Your task to perform on an android device: Find coffee shops on Maps Image 0: 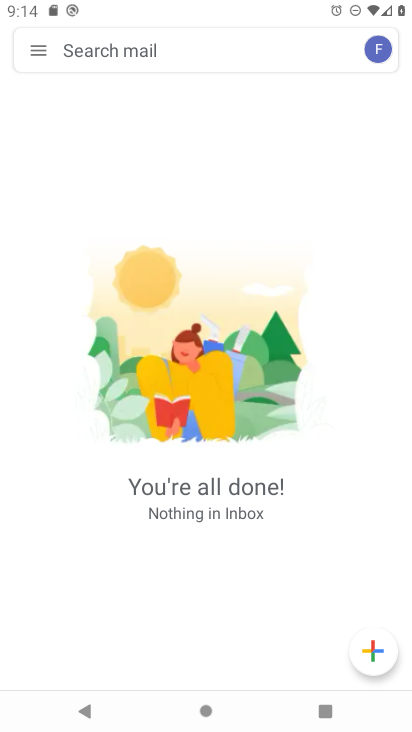
Step 0: press home button
Your task to perform on an android device: Find coffee shops on Maps Image 1: 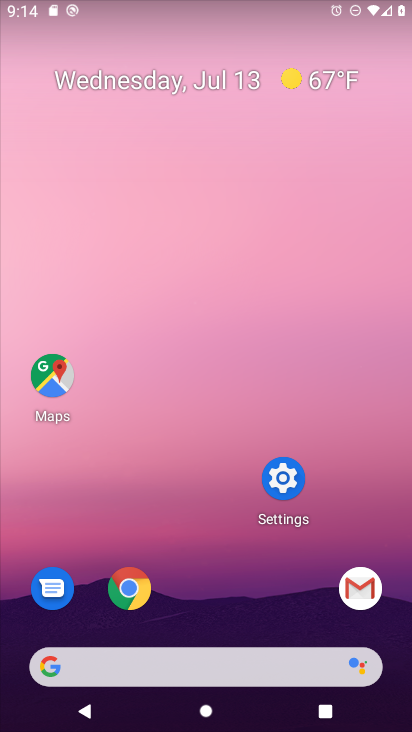
Step 1: click (70, 356)
Your task to perform on an android device: Find coffee shops on Maps Image 2: 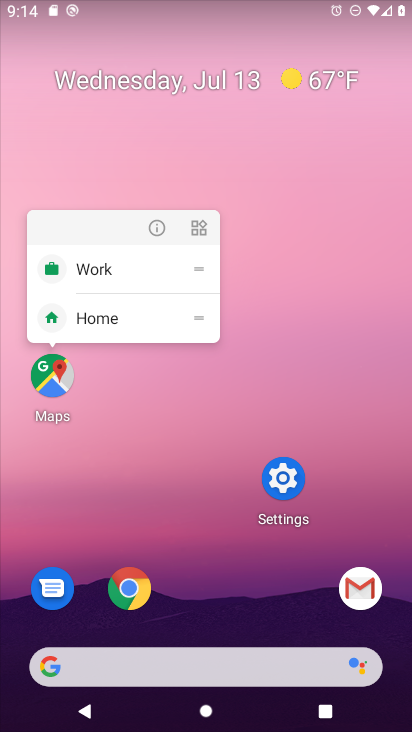
Step 2: click (57, 371)
Your task to perform on an android device: Find coffee shops on Maps Image 3: 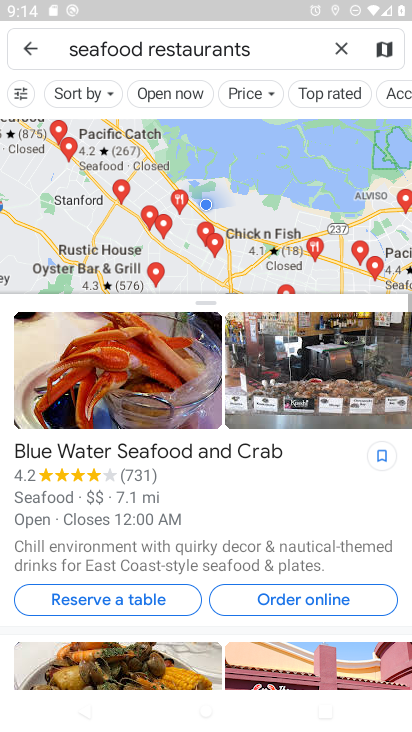
Step 3: click (341, 46)
Your task to perform on an android device: Find coffee shops on Maps Image 4: 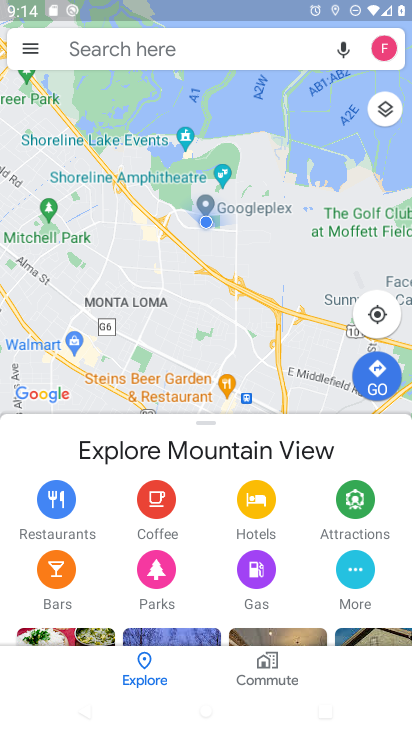
Step 4: click (150, 55)
Your task to perform on an android device: Find coffee shops on Maps Image 5: 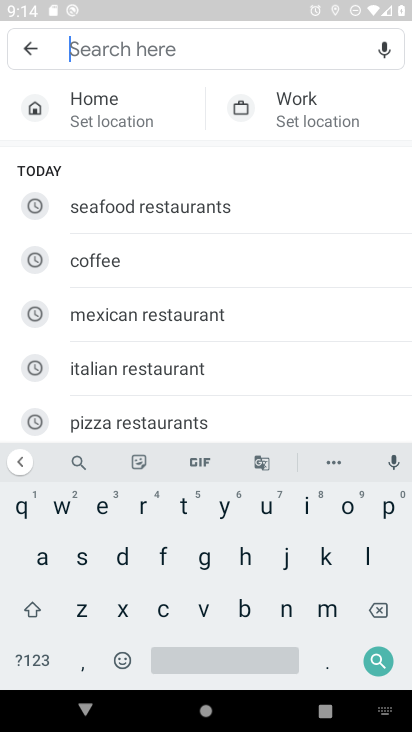
Step 5: click (92, 258)
Your task to perform on an android device: Find coffee shops on Maps Image 6: 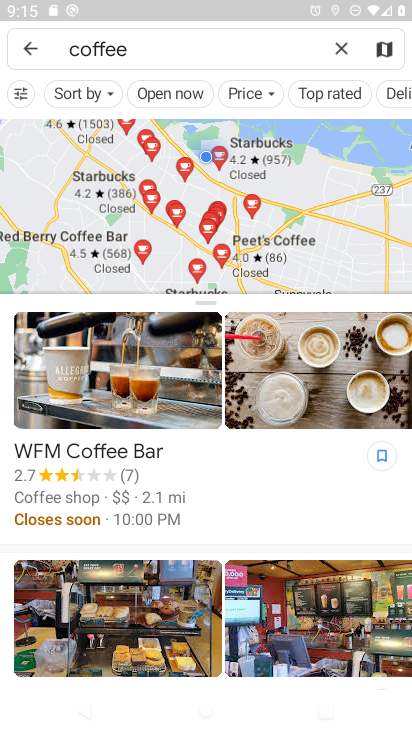
Step 6: task complete